Your task to perform on an android device: open the mobile data screen to see how much data has been used Image 0: 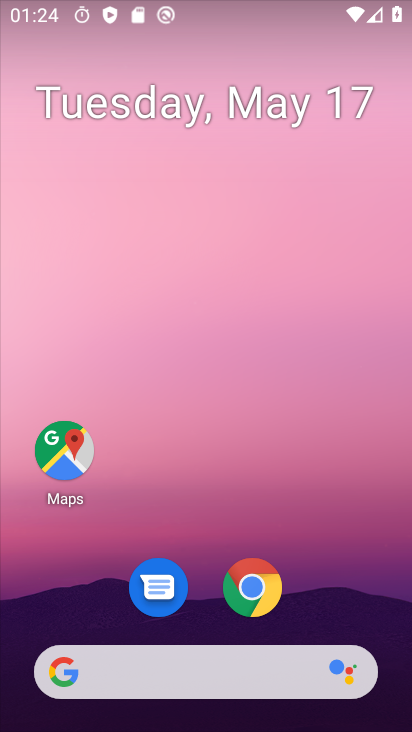
Step 0: drag from (360, 599) to (292, 146)
Your task to perform on an android device: open the mobile data screen to see how much data has been used Image 1: 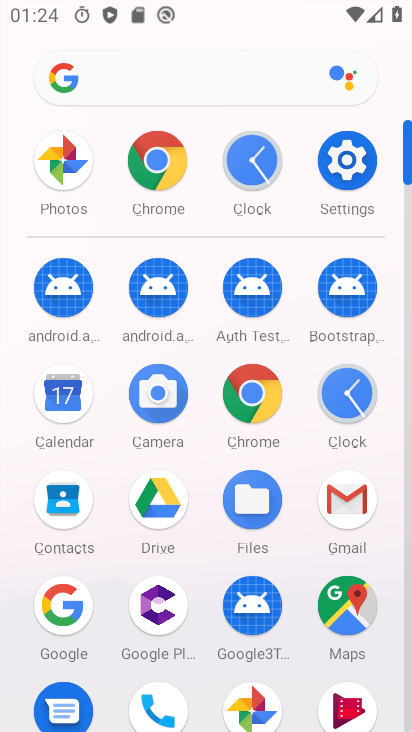
Step 1: click (353, 164)
Your task to perform on an android device: open the mobile data screen to see how much data has been used Image 2: 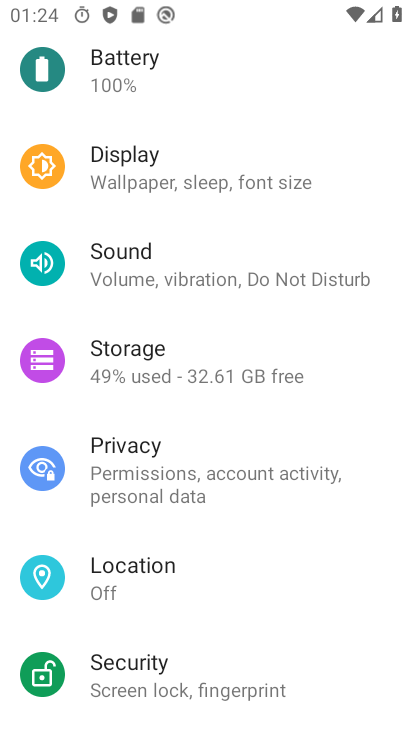
Step 2: drag from (235, 146) to (263, 616)
Your task to perform on an android device: open the mobile data screen to see how much data has been used Image 3: 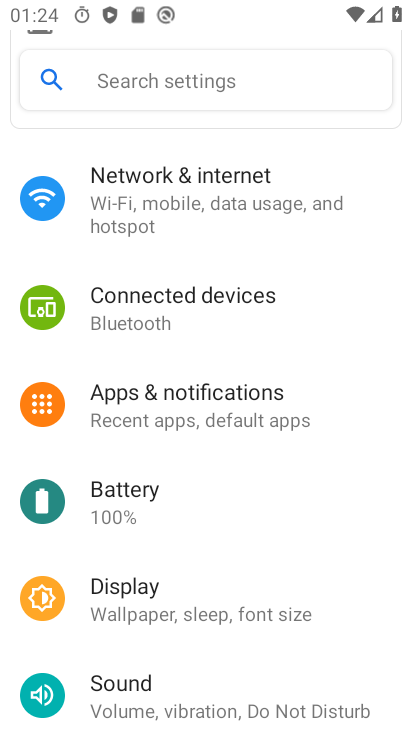
Step 3: click (225, 199)
Your task to perform on an android device: open the mobile data screen to see how much data has been used Image 4: 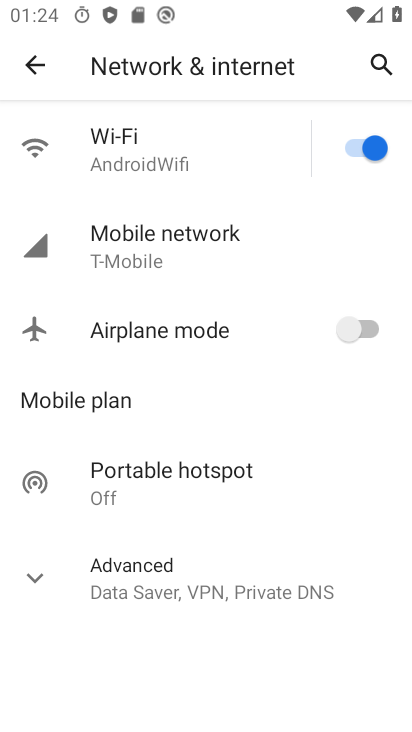
Step 4: click (192, 239)
Your task to perform on an android device: open the mobile data screen to see how much data has been used Image 5: 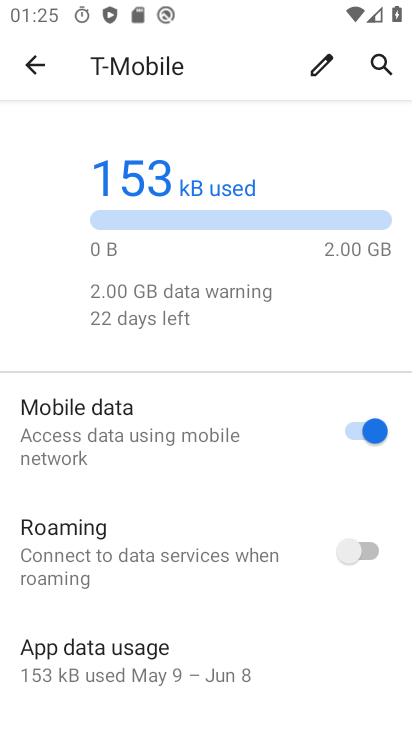
Step 5: task complete